Your task to perform on an android device: move a message to another label in the gmail app Image 0: 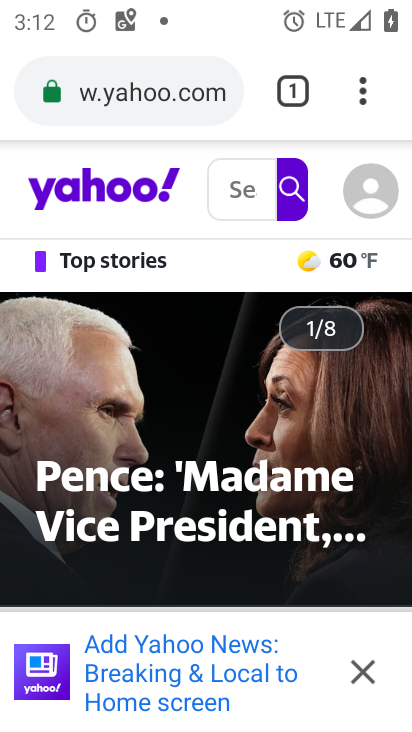
Step 0: press home button
Your task to perform on an android device: move a message to another label in the gmail app Image 1: 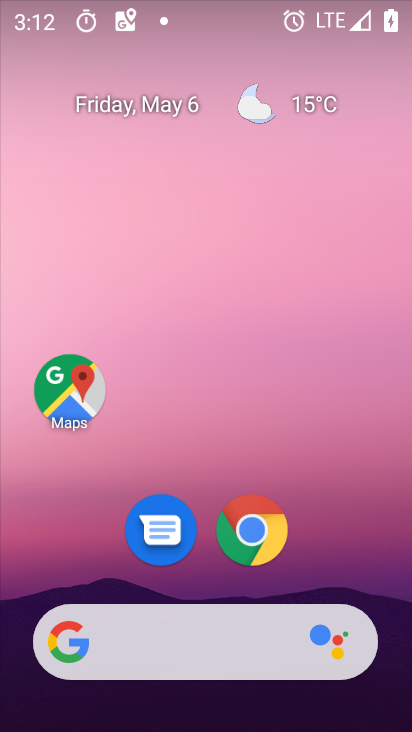
Step 1: drag from (368, 549) to (411, 93)
Your task to perform on an android device: move a message to another label in the gmail app Image 2: 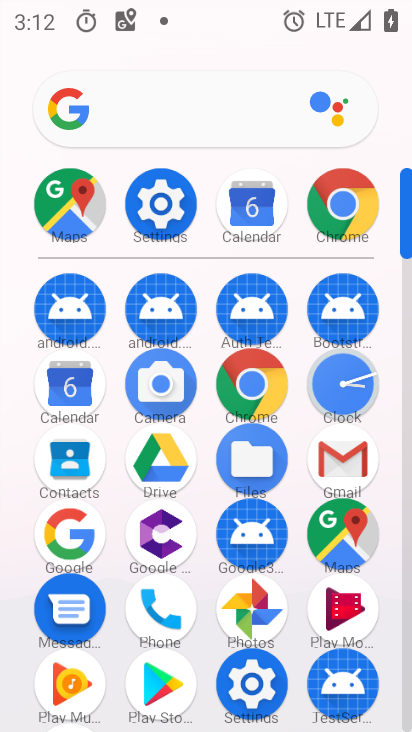
Step 2: click (336, 458)
Your task to perform on an android device: move a message to another label in the gmail app Image 3: 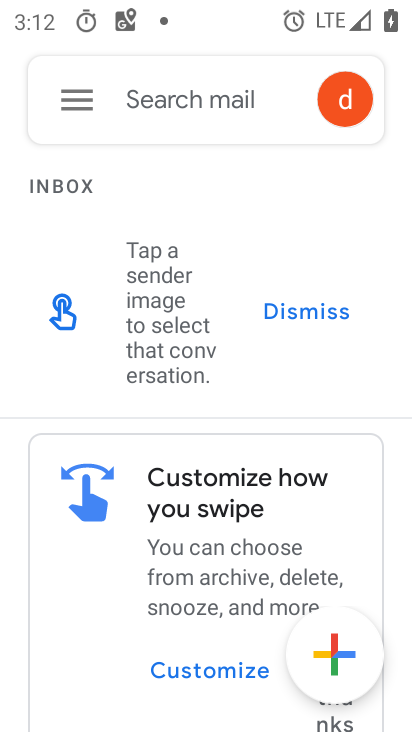
Step 3: drag from (286, 539) to (375, 242)
Your task to perform on an android device: move a message to another label in the gmail app Image 4: 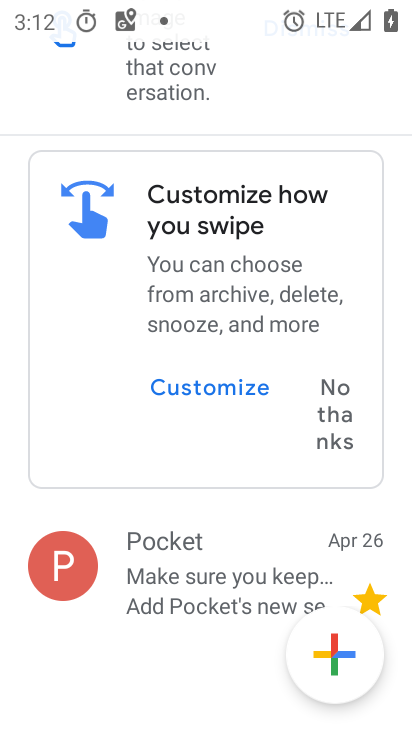
Step 4: click (214, 597)
Your task to perform on an android device: move a message to another label in the gmail app Image 5: 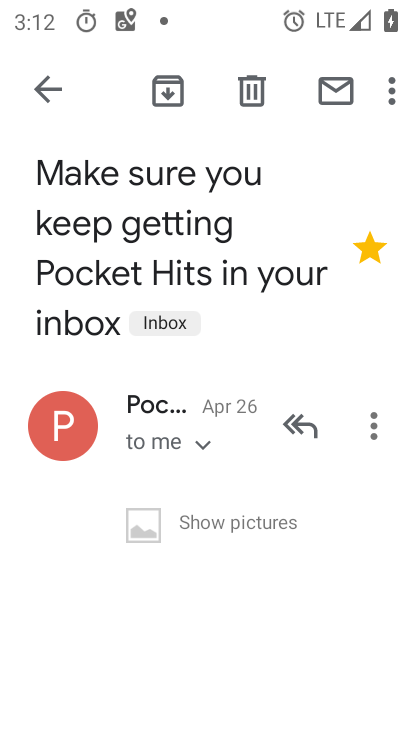
Step 5: click (363, 430)
Your task to perform on an android device: move a message to another label in the gmail app Image 6: 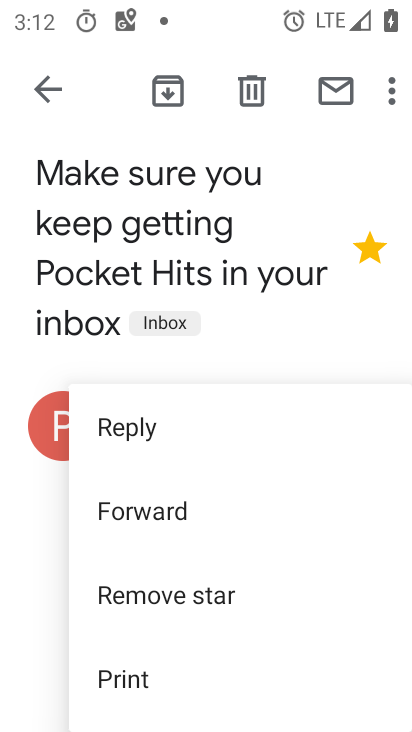
Step 6: click (368, 256)
Your task to perform on an android device: move a message to another label in the gmail app Image 7: 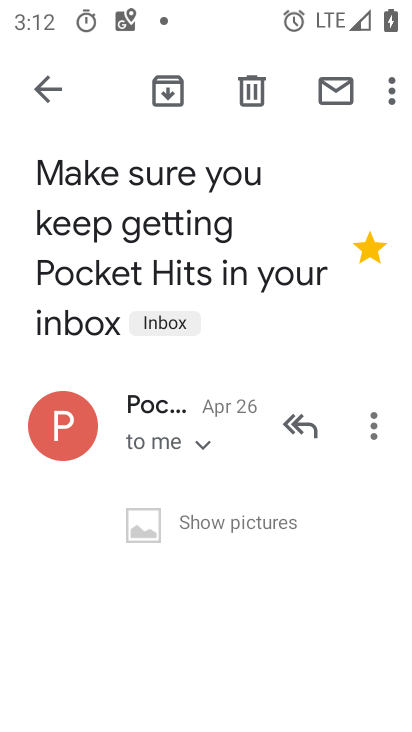
Step 7: click (366, 439)
Your task to perform on an android device: move a message to another label in the gmail app Image 8: 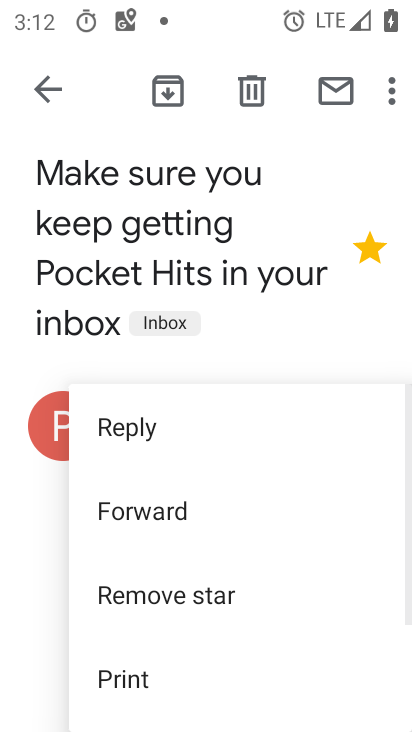
Step 8: click (363, 320)
Your task to perform on an android device: move a message to another label in the gmail app Image 9: 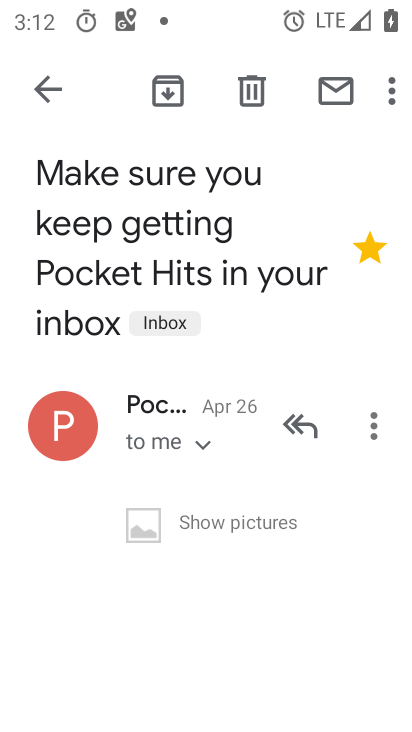
Step 9: click (391, 95)
Your task to perform on an android device: move a message to another label in the gmail app Image 10: 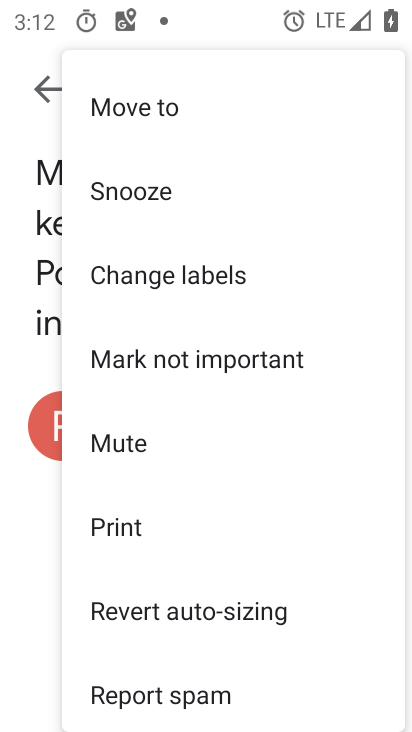
Step 10: click (159, 277)
Your task to perform on an android device: move a message to another label in the gmail app Image 11: 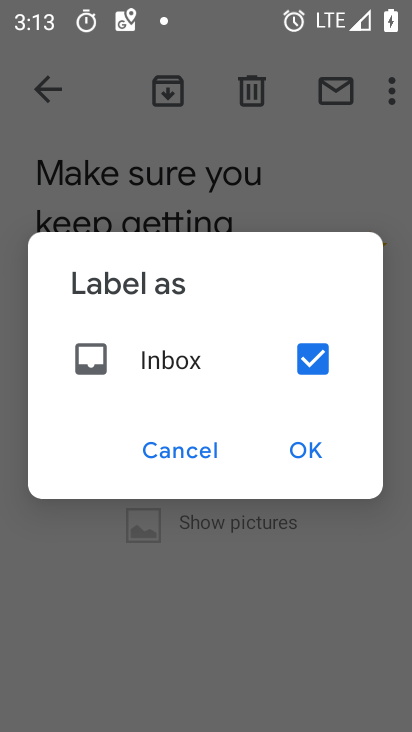
Step 11: click (320, 350)
Your task to perform on an android device: move a message to another label in the gmail app Image 12: 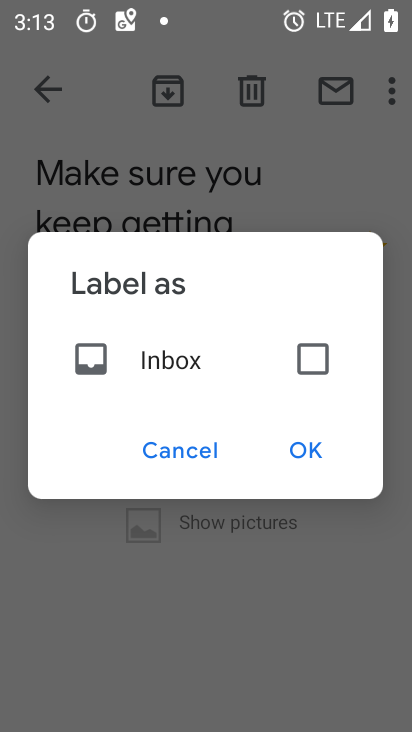
Step 12: click (312, 461)
Your task to perform on an android device: move a message to another label in the gmail app Image 13: 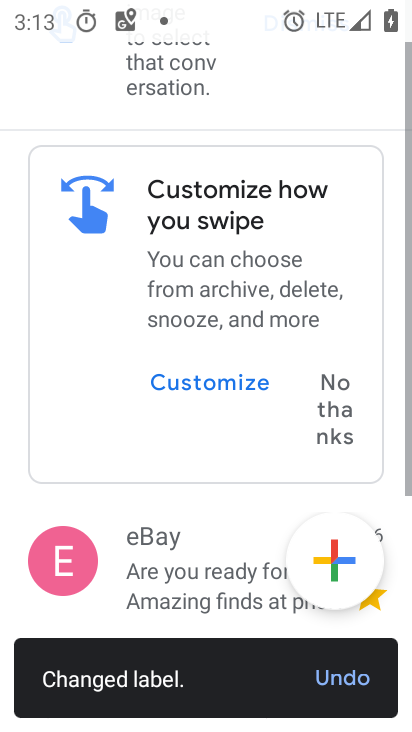
Step 13: task complete